Your task to perform on an android device: Clear the cart on amazon. Search for "jbl flip 4" on amazon, select the first entry, add it to the cart, then select checkout. Image 0: 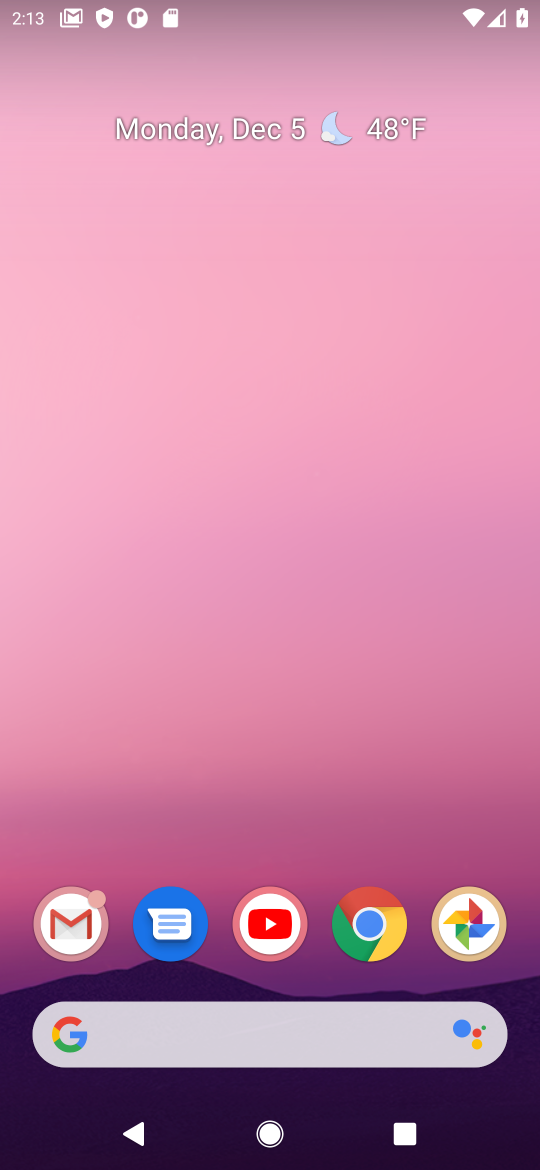
Step 0: click (244, 1033)
Your task to perform on an android device: Clear the cart on amazon. Search for "jbl flip 4" on amazon, select the first entry, add it to the cart, then select checkout. Image 1: 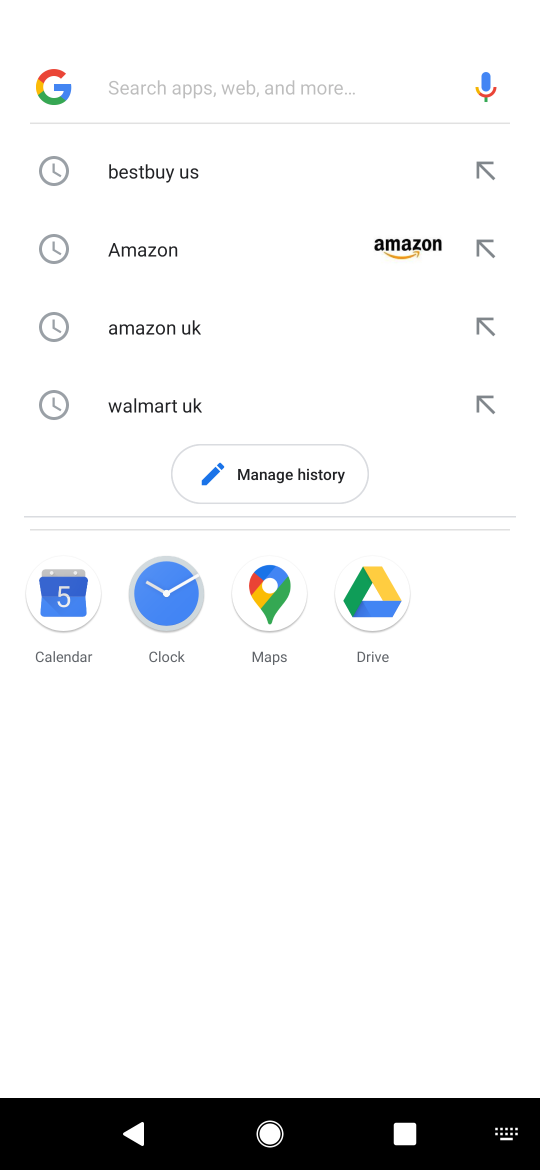
Step 1: type "amazon"
Your task to perform on an android device: Clear the cart on amazon. Search for "jbl flip 4" on amazon, select the first entry, add it to the cart, then select checkout. Image 2: 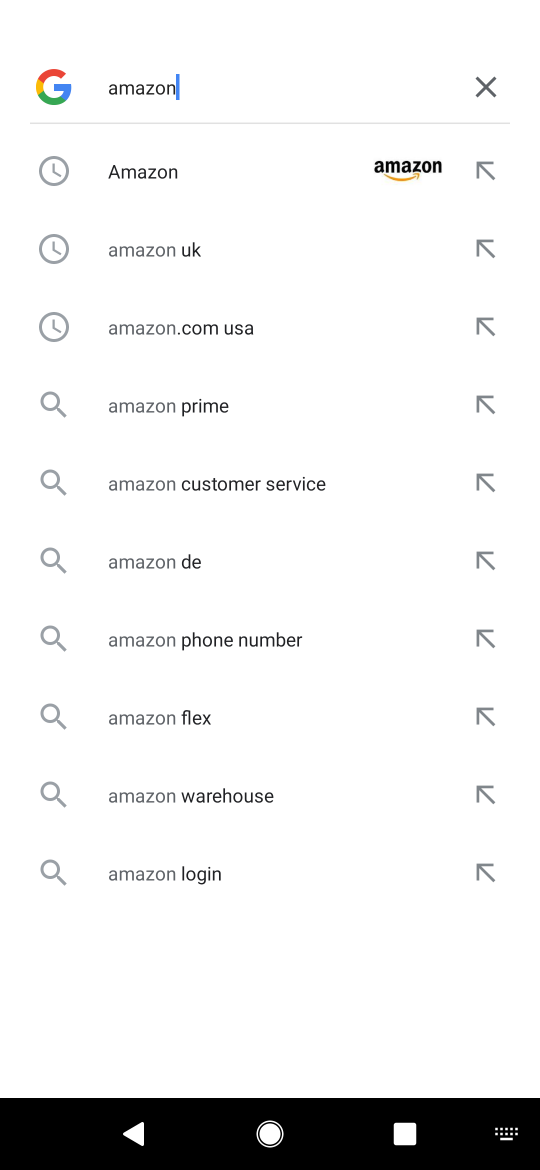
Step 2: click (363, 163)
Your task to perform on an android device: Clear the cart on amazon. Search for "jbl flip 4" on amazon, select the first entry, add it to the cart, then select checkout. Image 3: 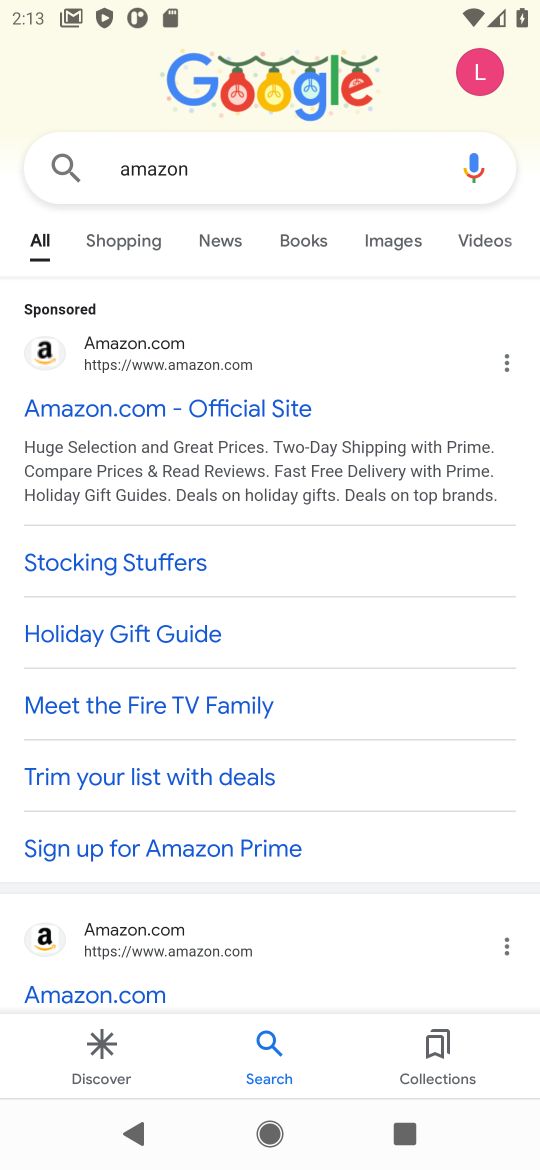
Step 3: click (141, 401)
Your task to perform on an android device: Clear the cart on amazon. Search for "jbl flip 4" on amazon, select the first entry, add it to the cart, then select checkout. Image 4: 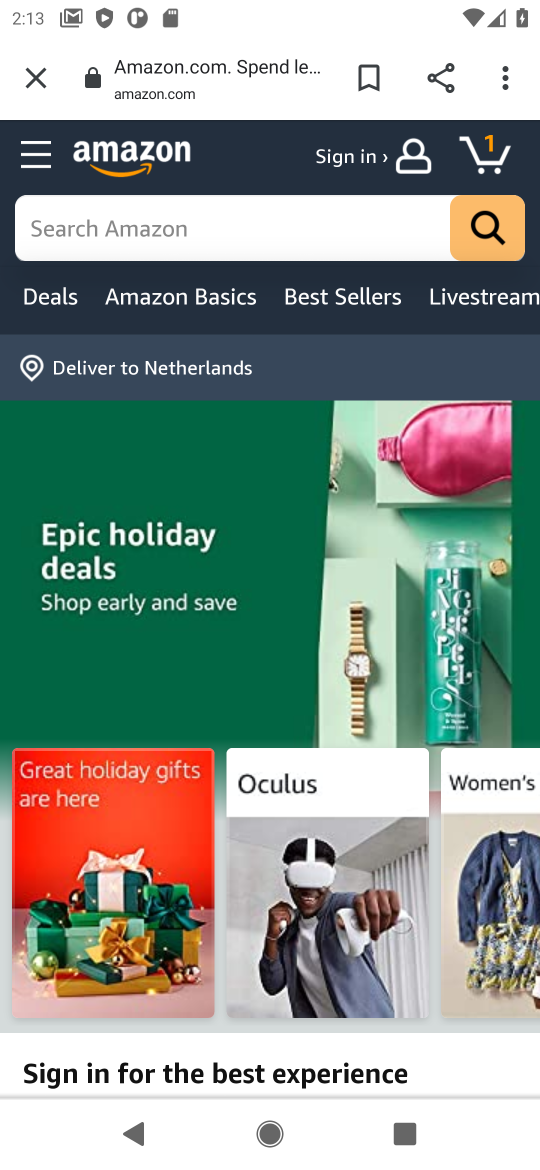
Step 4: click (152, 247)
Your task to perform on an android device: Clear the cart on amazon. Search for "jbl flip 4" on amazon, select the first entry, add it to the cart, then select checkout. Image 5: 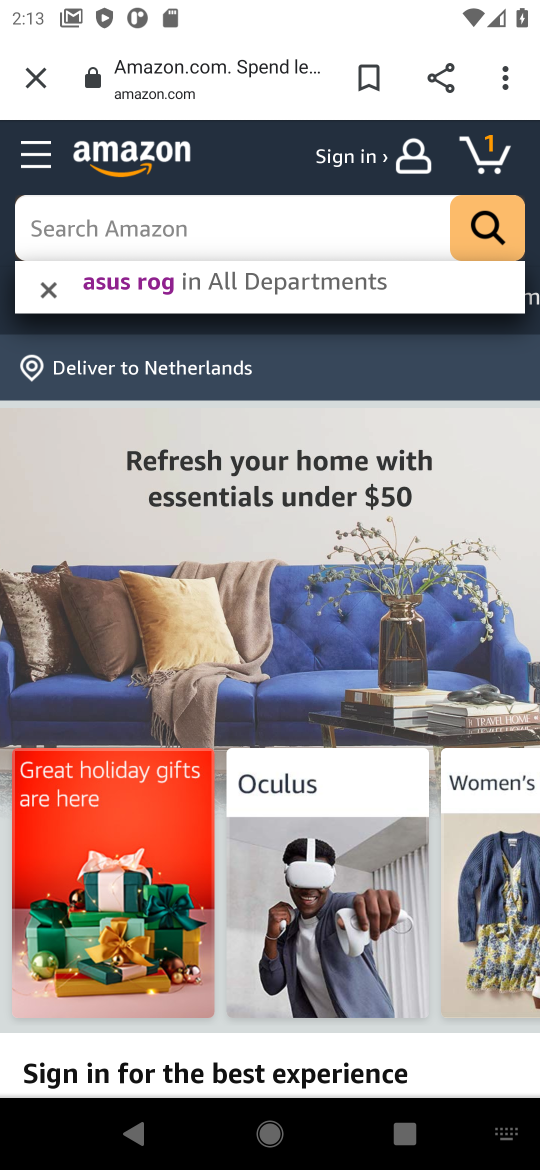
Step 5: type "jbl flip 4"
Your task to perform on an android device: Clear the cart on amazon. Search for "jbl flip 4" on amazon, select the first entry, add it to the cart, then select checkout. Image 6: 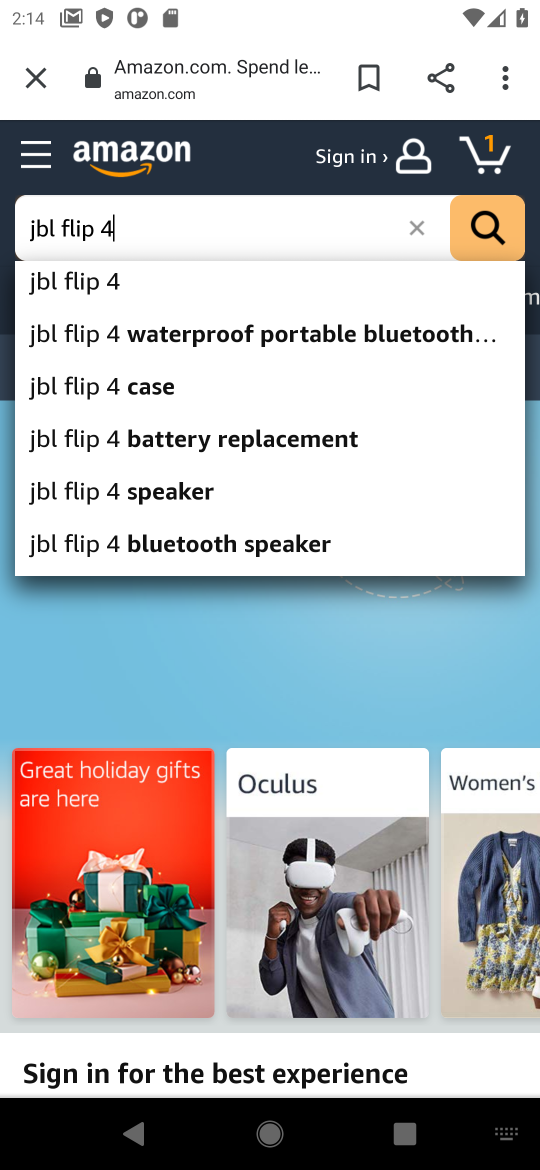
Step 6: click (61, 299)
Your task to perform on an android device: Clear the cart on amazon. Search for "jbl flip 4" on amazon, select the first entry, add it to the cart, then select checkout. Image 7: 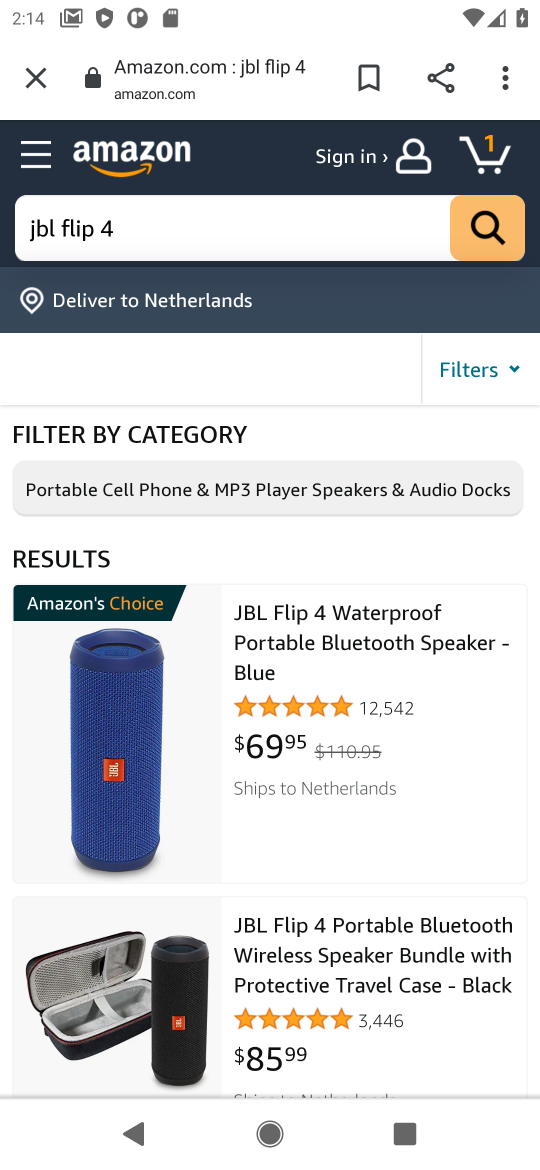
Step 7: click (462, 233)
Your task to perform on an android device: Clear the cart on amazon. Search for "jbl flip 4" on amazon, select the first entry, add it to the cart, then select checkout. Image 8: 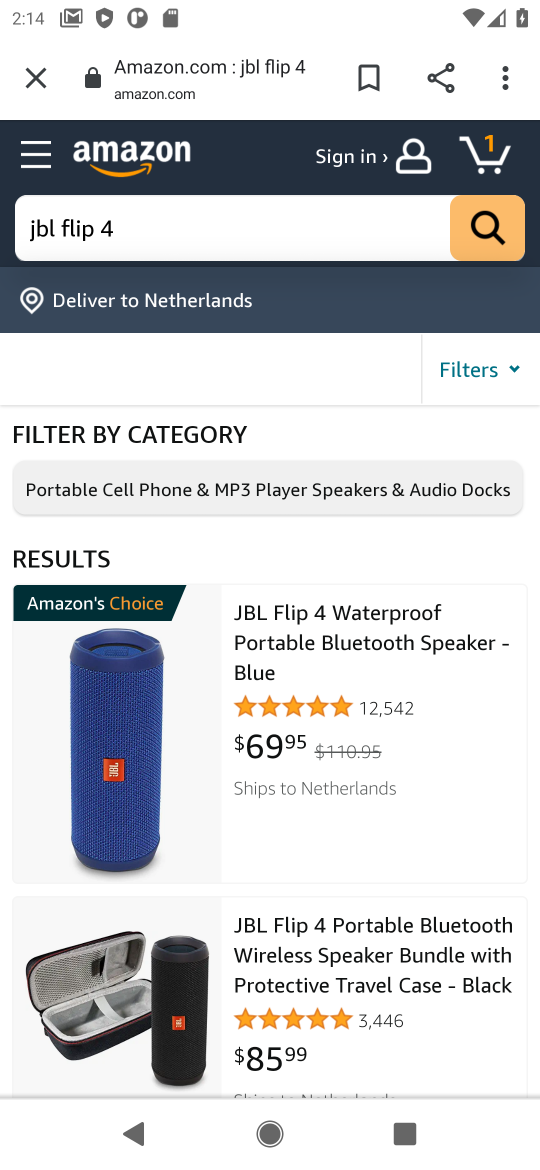
Step 8: click (319, 649)
Your task to perform on an android device: Clear the cart on amazon. Search for "jbl flip 4" on amazon, select the first entry, add it to the cart, then select checkout. Image 9: 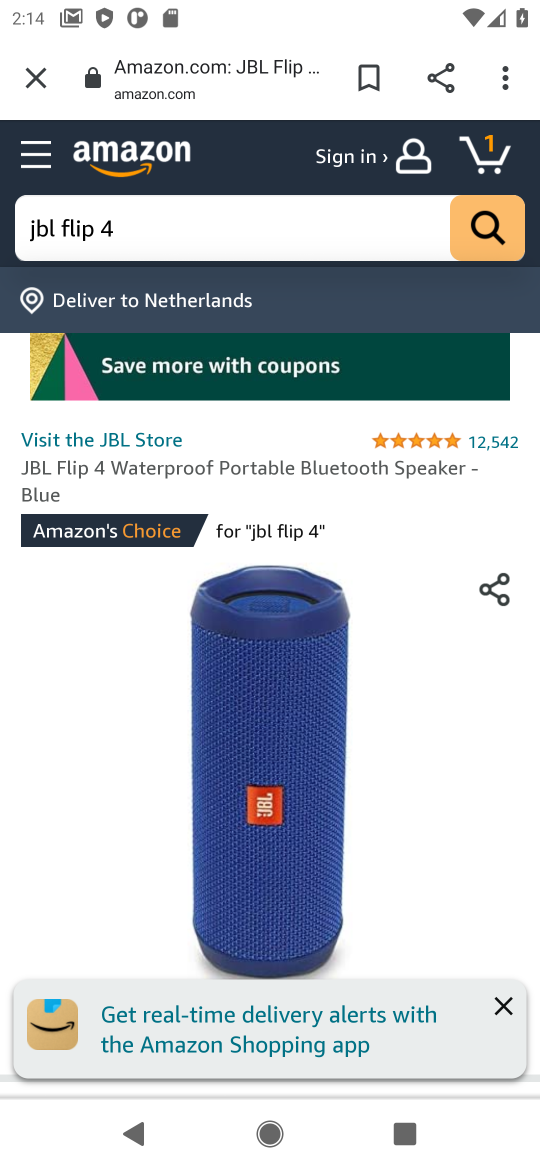
Step 9: task complete